Your task to perform on an android device: Go to internet settings Image 0: 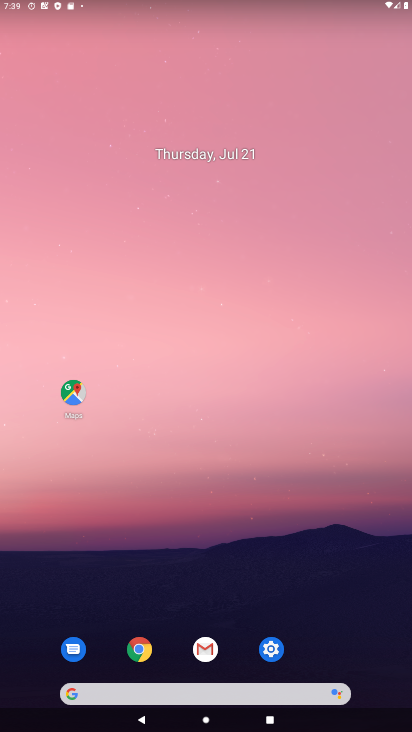
Step 0: click (265, 650)
Your task to perform on an android device: Go to internet settings Image 1: 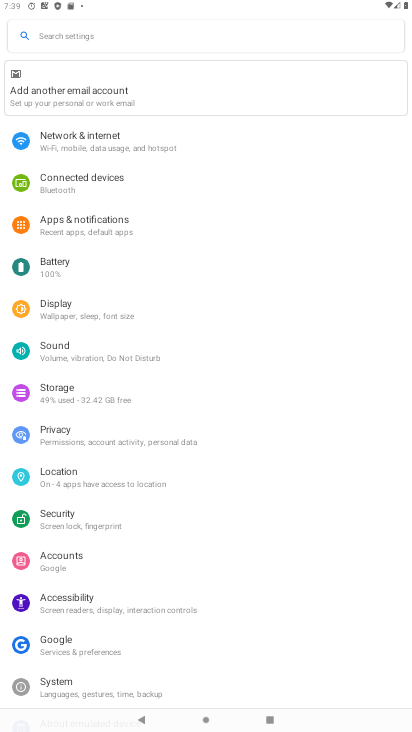
Step 1: click (130, 149)
Your task to perform on an android device: Go to internet settings Image 2: 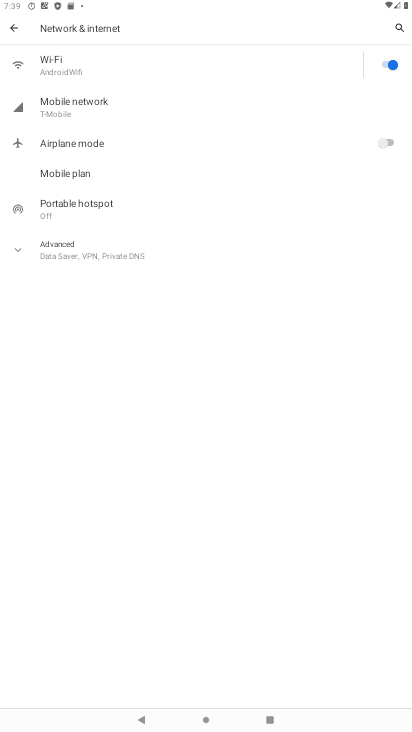
Step 2: task complete